Your task to perform on an android device: turn on the 24-hour format for clock Image 0: 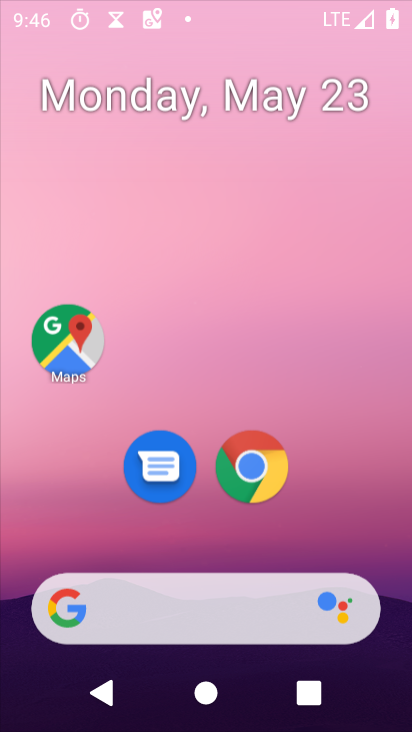
Step 0: click (74, 345)
Your task to perform on an android device: turn on the 24-hour format for clock Image 1: 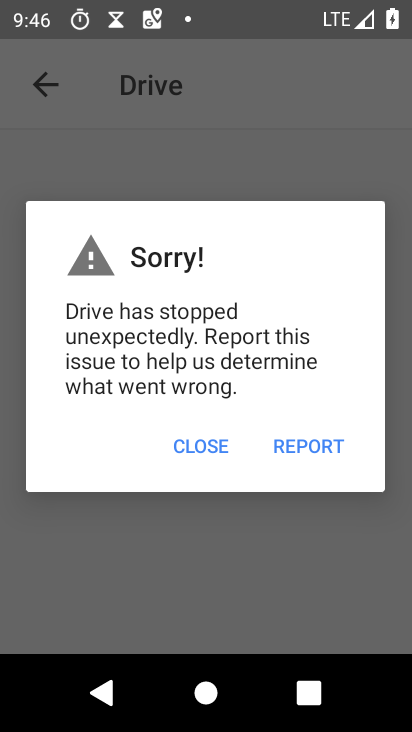
Step 1: press home button
Your task to perform on an android device: turn on the 24-hour format for clock Image 2: 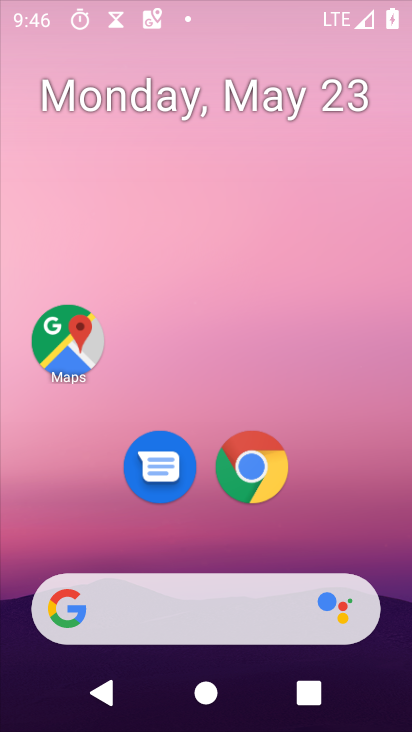
Step 2: drag from (318, 439) to (246, 34)
Your task to perform on an android device: turn on the 24-hour format for clock Image 3: 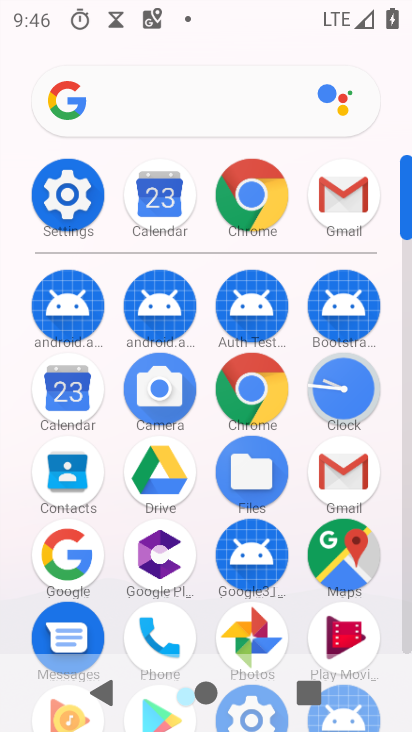
Step 3: click (342, 386)
Your task to perform on an android device: turn on the 24-hour format for clock Image 4: 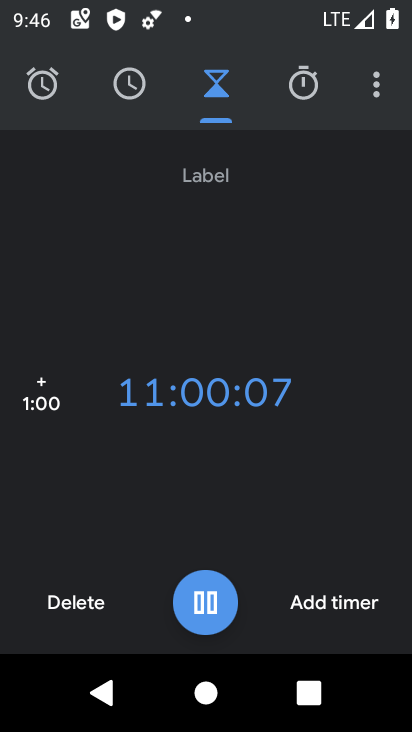
Step 4: click (382, 70)
Your task to perform on an android device: turn on the 24-hour format for clock Image 5: 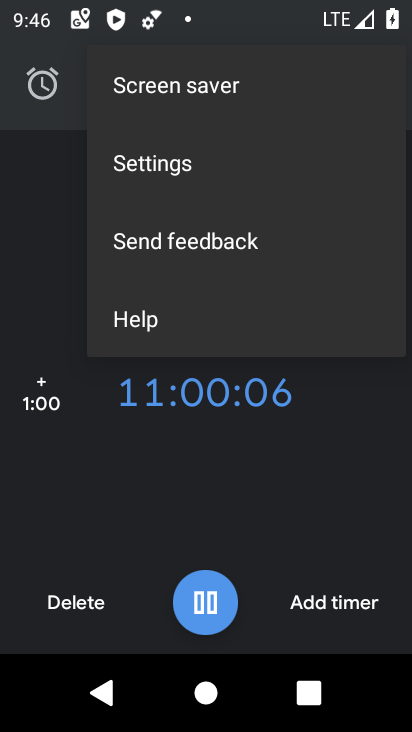
Step 5: click (312, 160)
Your task to perform on an android device: turn on the 24-hour format for clock Image 6: 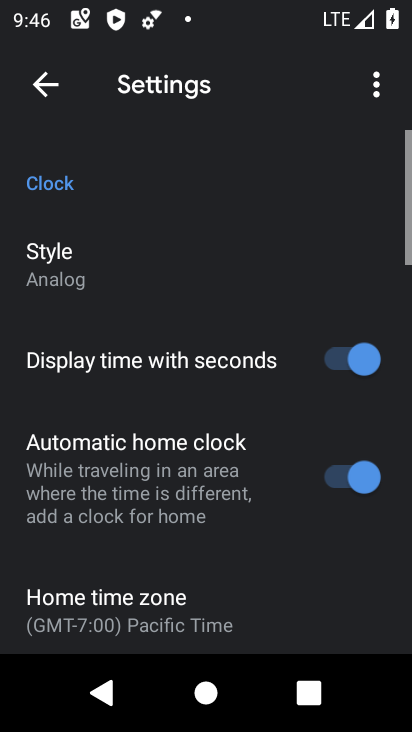
Step 6: drag from (197, 603) to (197, 298)
Your task to perform on an android device: turn on the 24-hour format for clock Image 7: 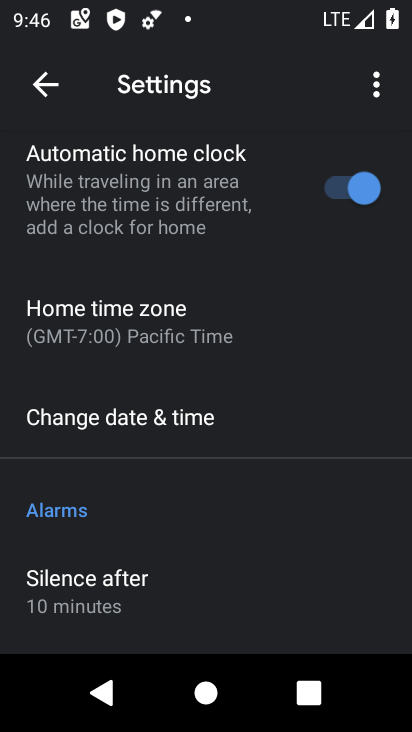
Step 7: click (166, 430)
Your task to perform on an android device: turn on the 24-hour format for clock Image 8: 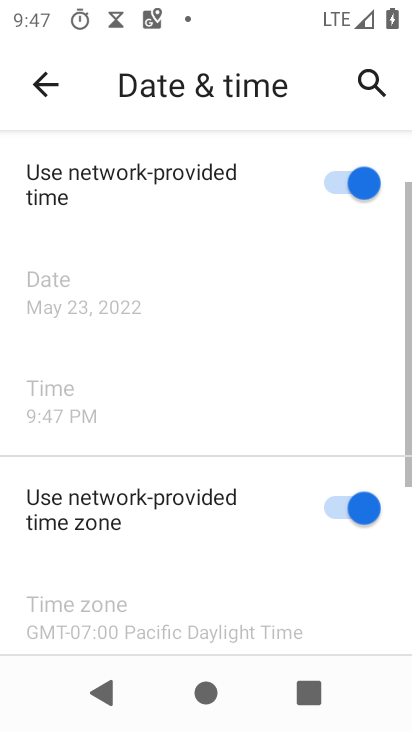
Step 8: drag from (265, 543) to (237, 119)
Your task to perform on an android device: turn on the 24-hour format for clock Image 9: 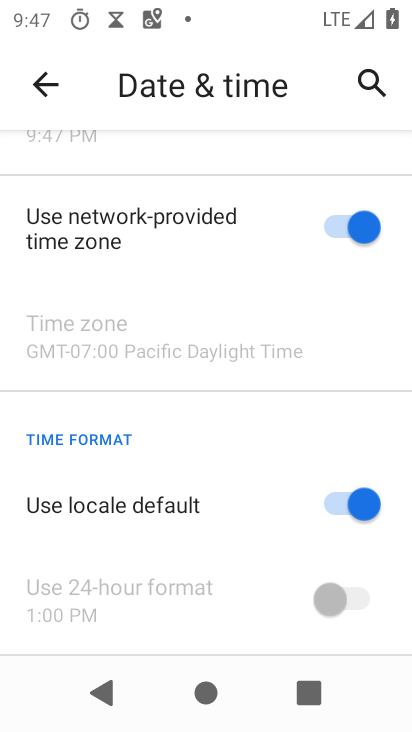
Step 9: click (346, 500)
Your task to perform on an android device: turn on the 24-hour format for clock Image 10: 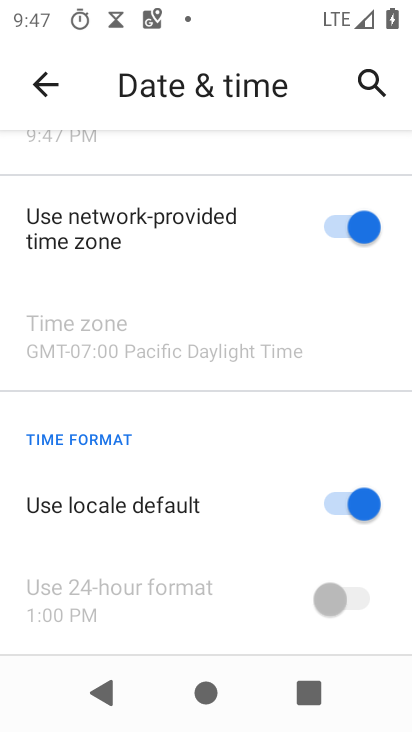
Step 10: click (334, 590)
Your task to perform on an android device: turn on the 24-hour format for clock Image 11: 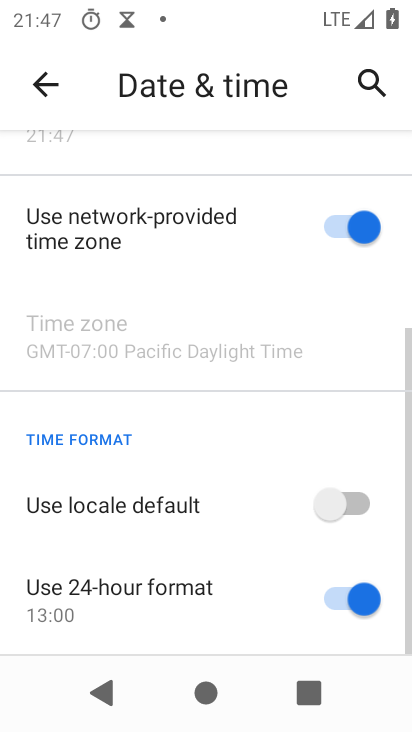
Step 11: task complete